Your task to perform on an android device: Go to Google Image 0: 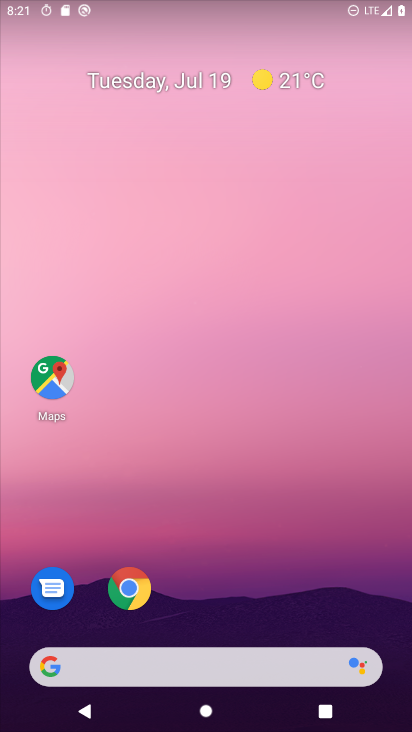
Step 0: drag from (238, 586) to (283, 130)
Your task to perform on an android device: Go to Google Image 1: 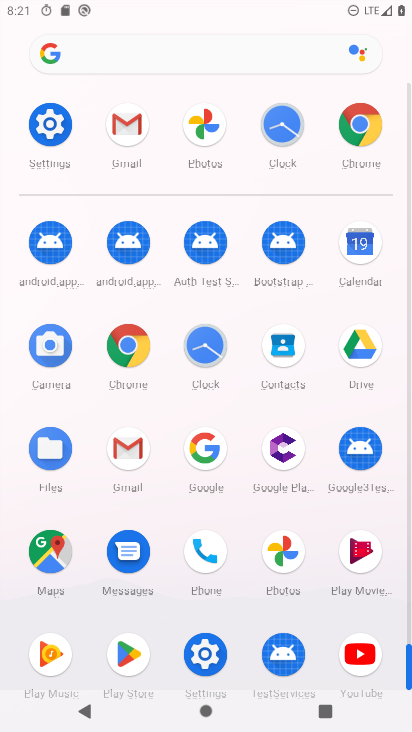
Step 1: click (196, 463)
Your task to perform on an android device: Go to Google Image 2: 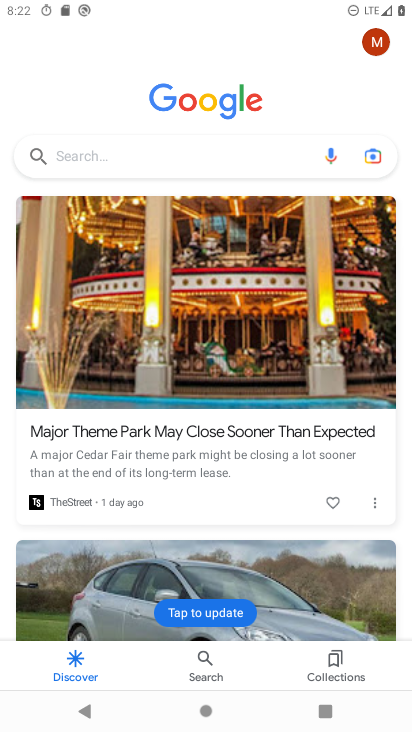
Step 2: task complete